Your task to perform on an android device: Open my contact list Image 0: 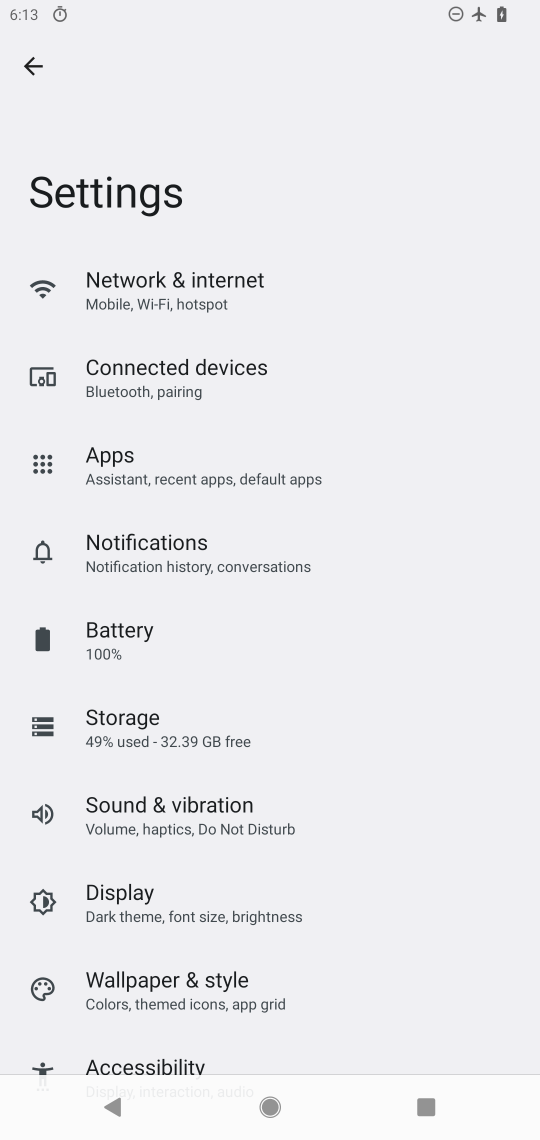
Step 0: press home button
Your task to perform on an android device: Open my contact list Image 1: 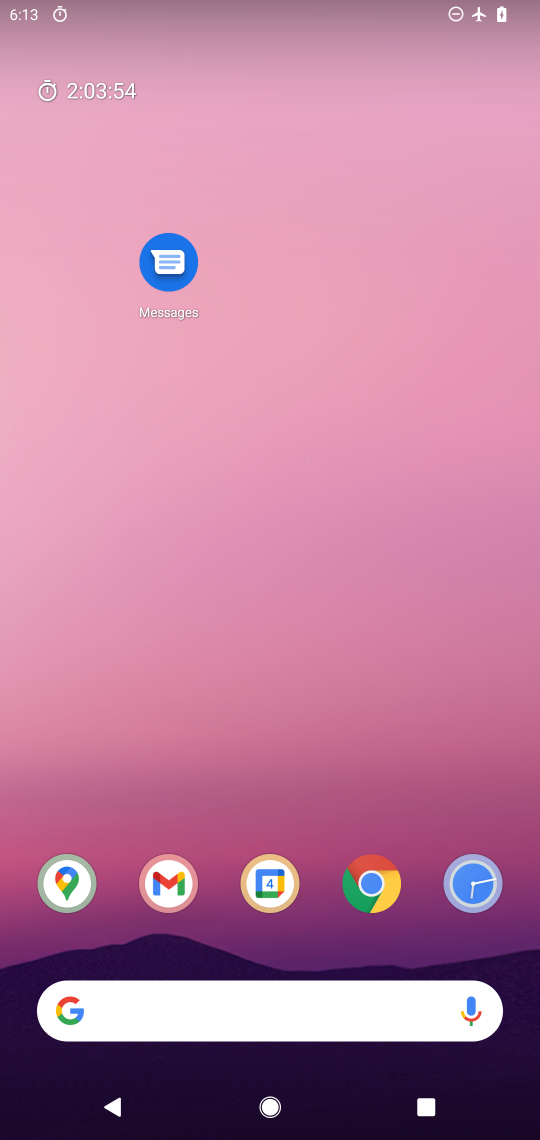
Step 1: drag from (291, 927) to (262, 131)
Your task to perform on an android device: Open my contact list Image 2: 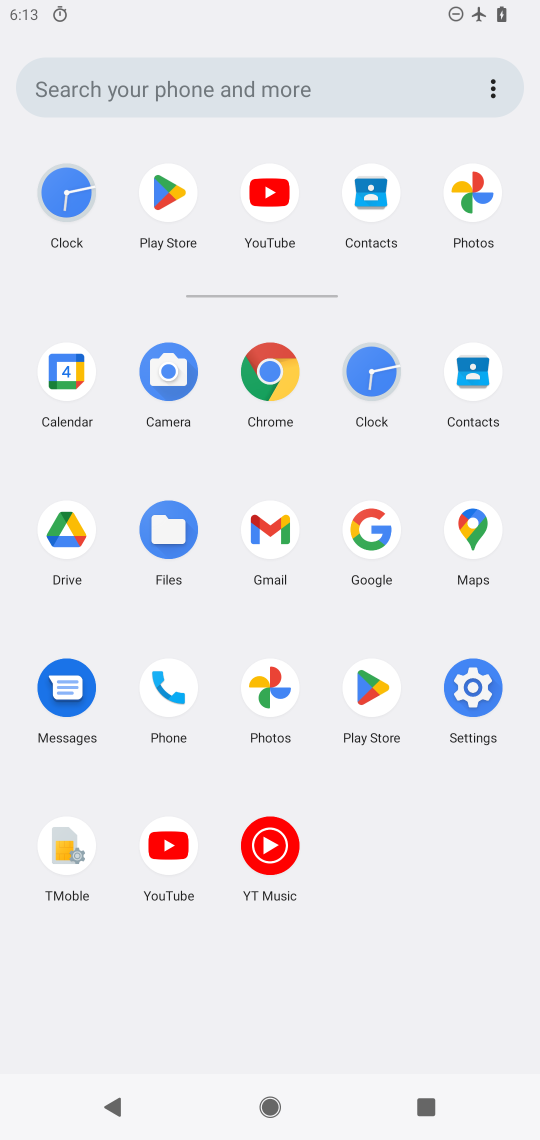
Step 2: click (466, 380)
Your task to perform on an android device: Open my contact list Image 3: 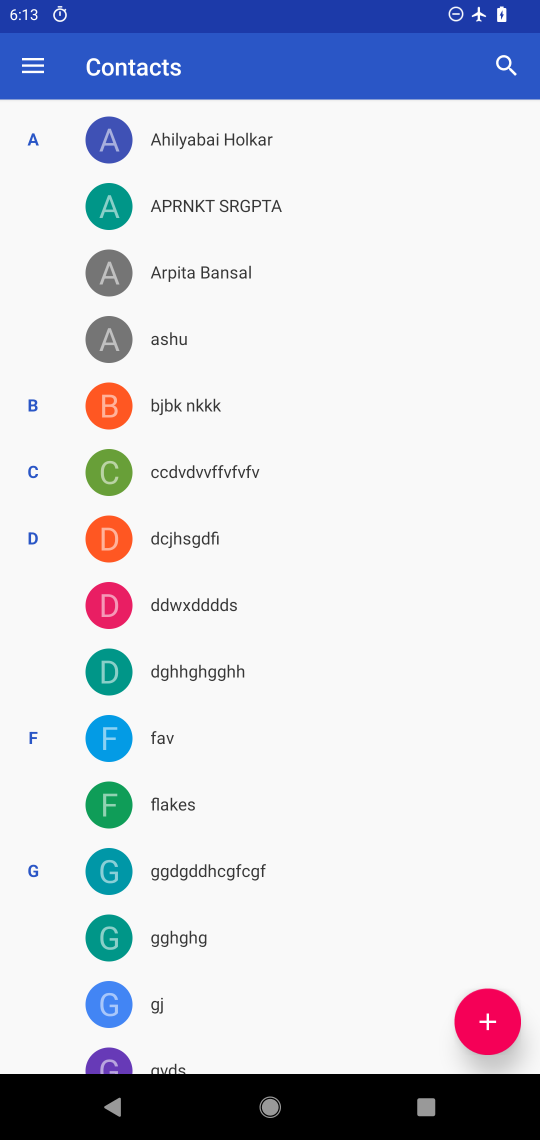
Step 3: task complete